Your task to perform on an android device: Go to location settings Image 0: 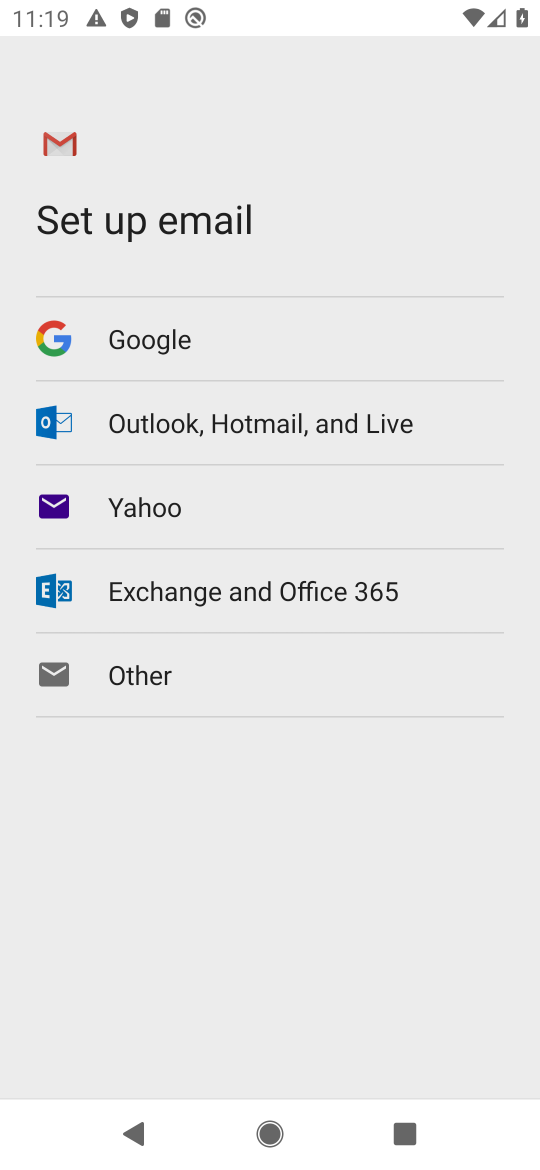
Step 0: press home button
Your task to perform on an android device: Go to location settings Image 1: 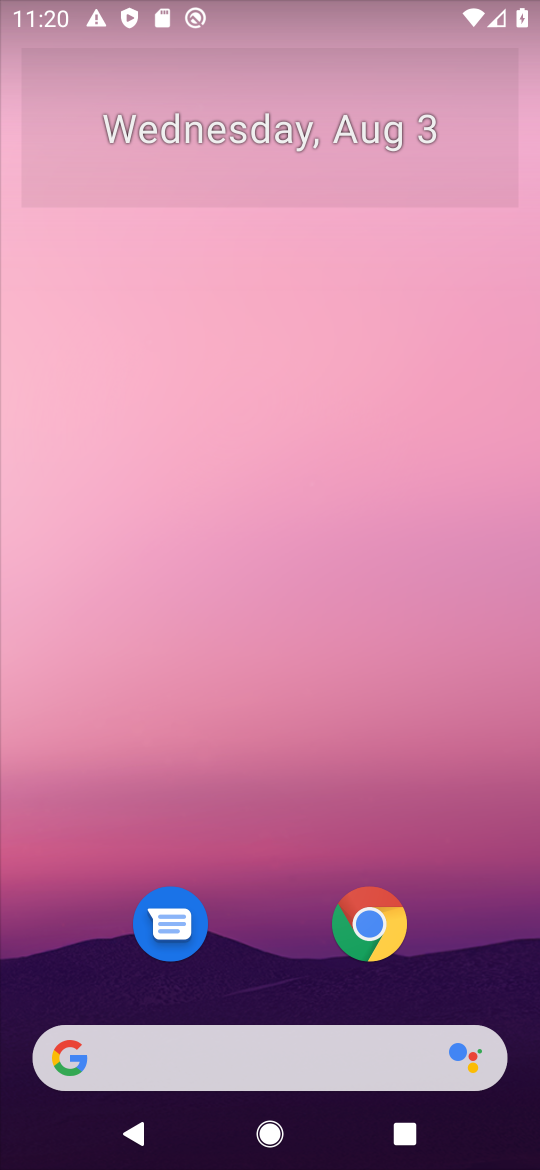
Step 1: click (332, 381)
Your task to perform on an android device: Go to location settings Image 2: 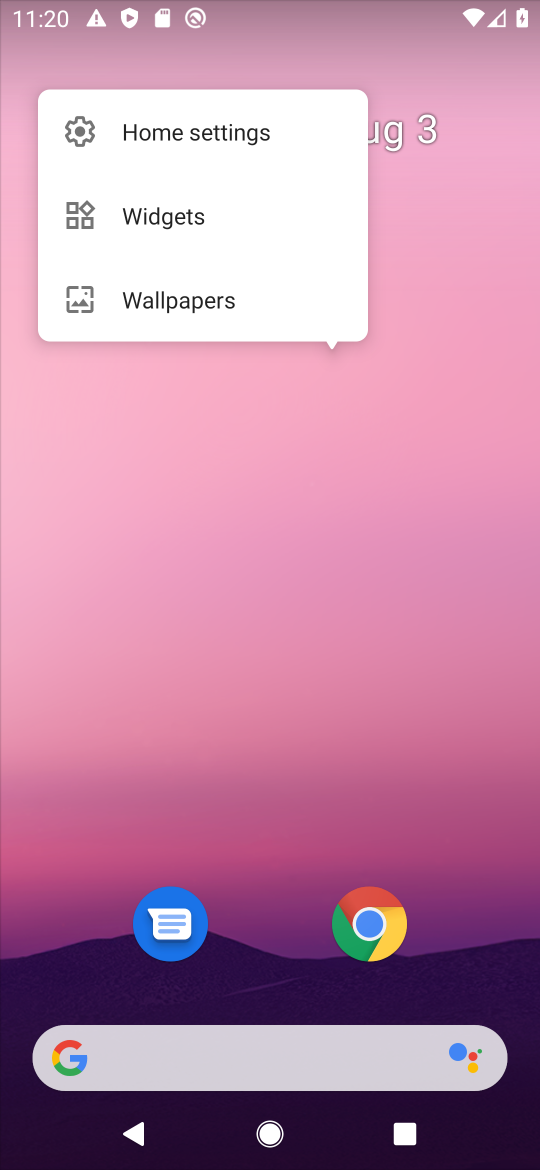
Step 2: drag from (38, 1097) to (244, 149)
Your task to perform on an android device: Go to location settings Image 3: 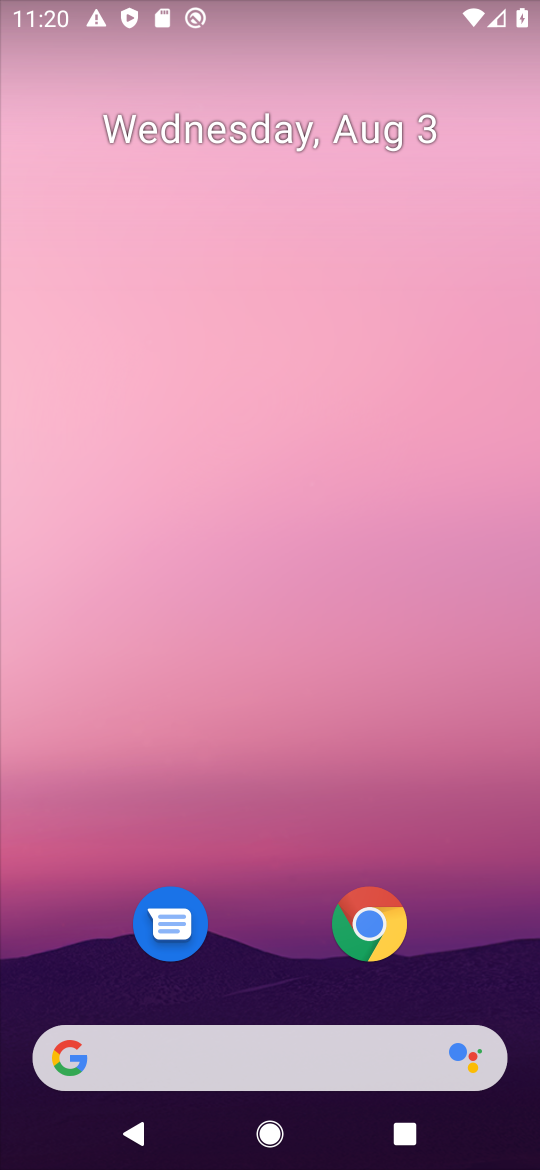
Step 3: drag from (131, 867) to (245, 259)
Your task to perform on an android device: Go to location settings Image 4: 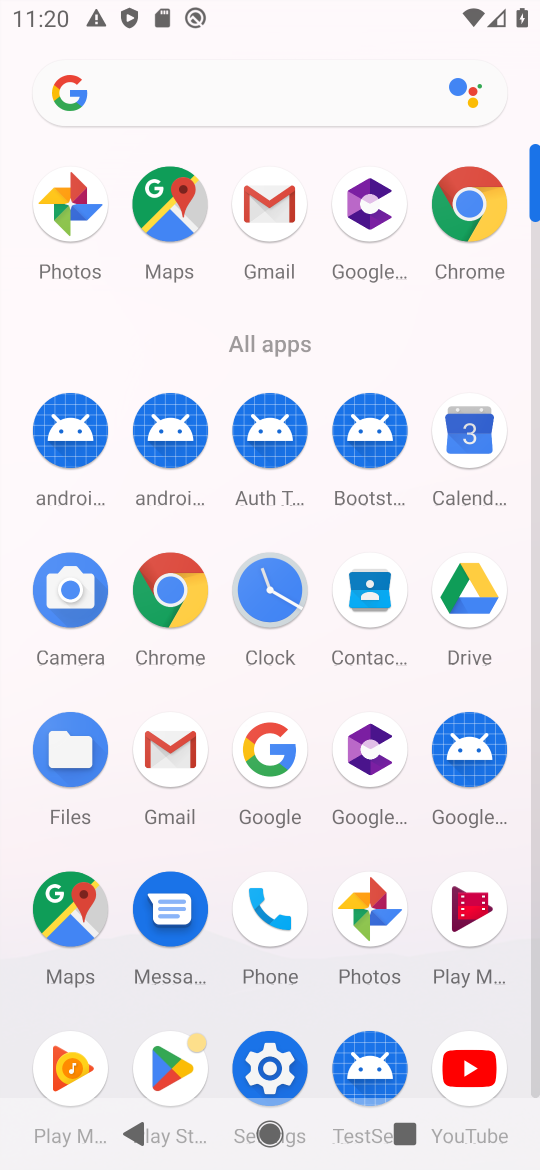
Step 4: click (249, 1071)
Your task to perform on an android device: Go to location settings Image 5: 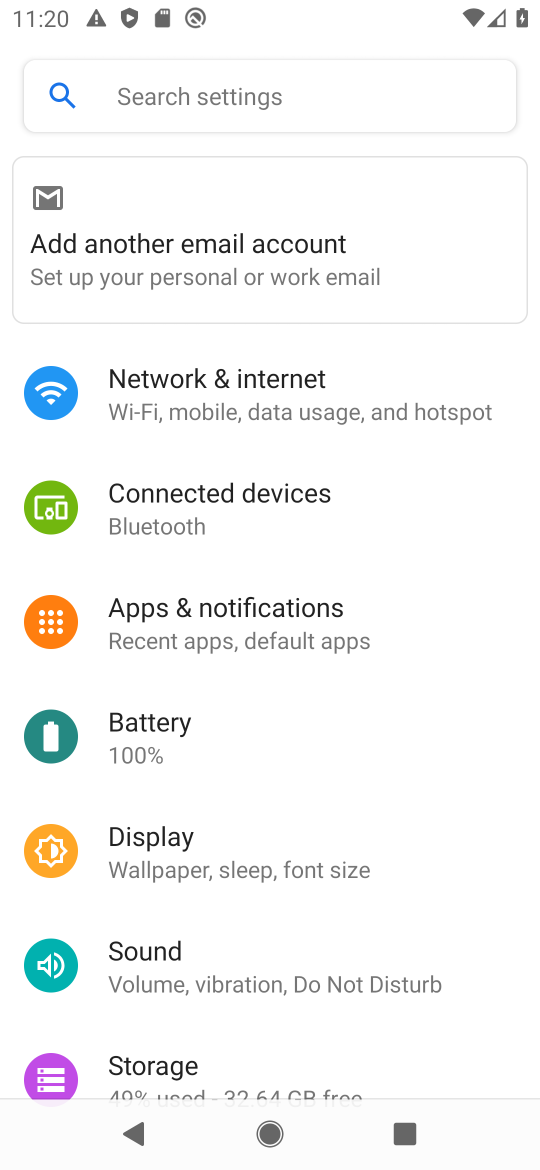
Step 5: drag from (339, 428) to (346, 120)
Your task to perform on an android device: Go to location settings Image 6: 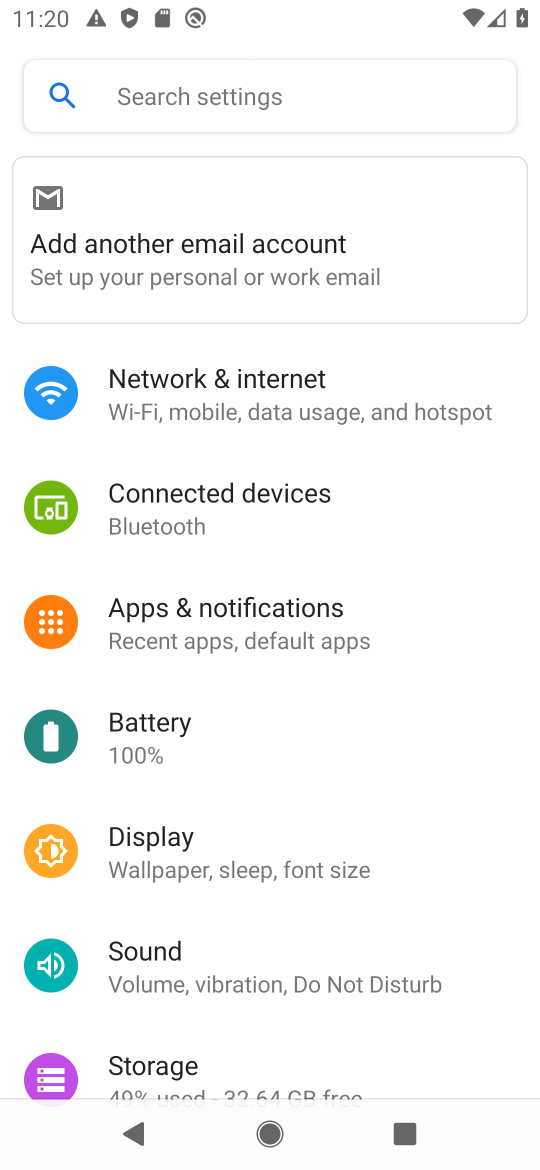
Step 6: drag from (227, 884) to (249, 432)
Your task to perform on an android device: Go to location settings Image 7: 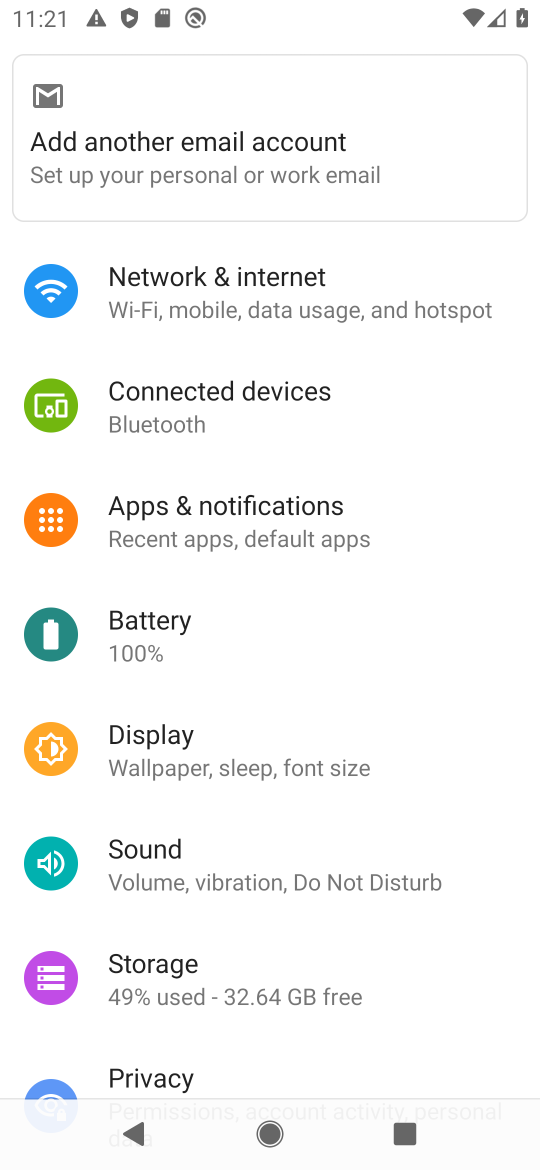
Step 7: drag from (330, 797) to (333, 605)
Your task to perform on an android device: Go to location settings Image 8: 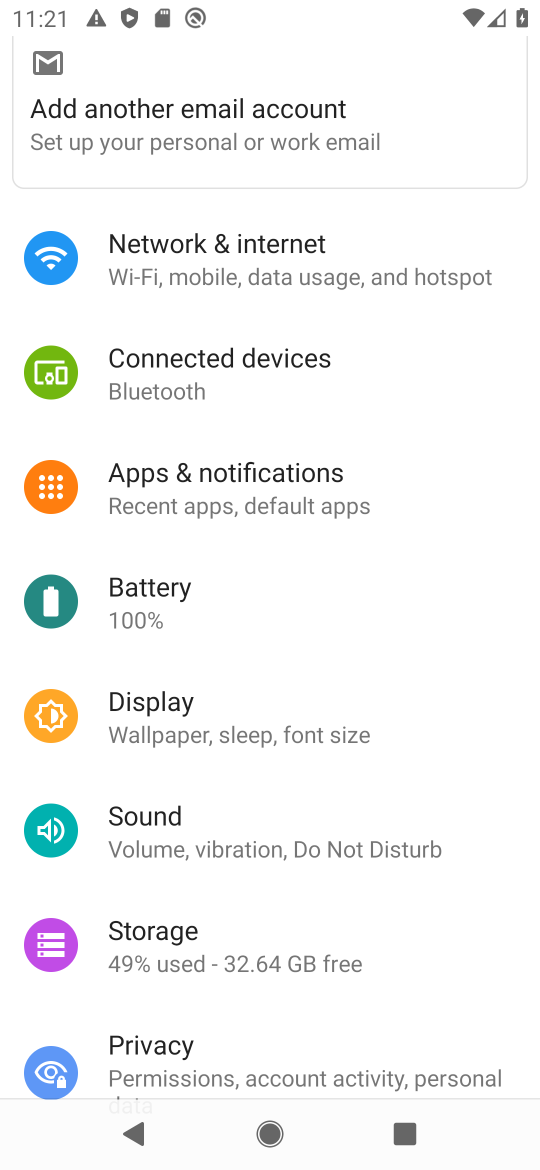
Step 8: drag from (198, 979) to (240, 536)
Your task to perform on an android device: Go to location settings Image 9: 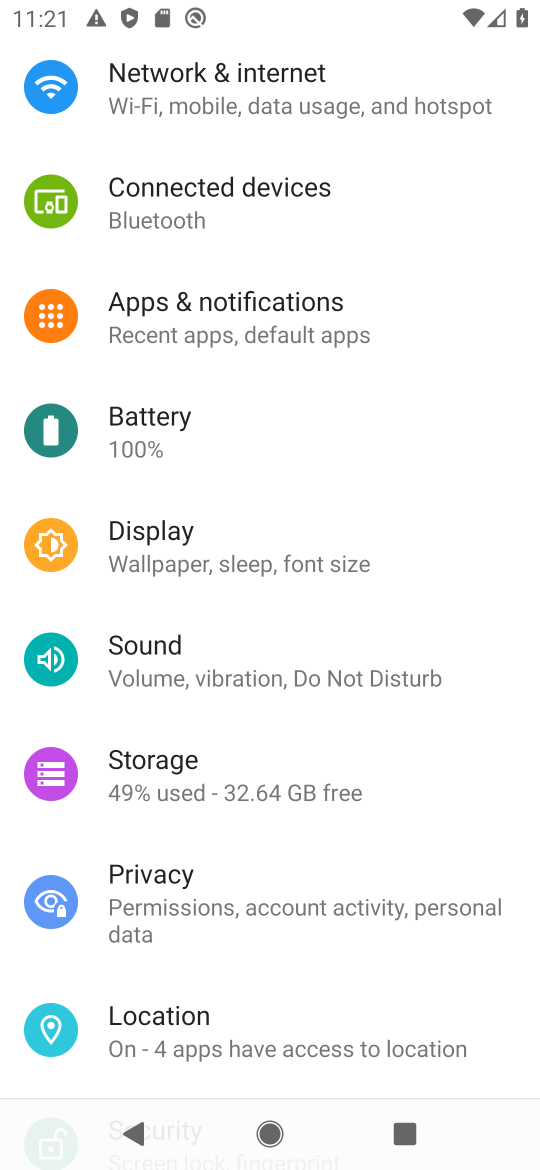
Step 9: drag from (252, 775) to (308, 255)
Your task to perform on an android device: Go to location settings Image 10: 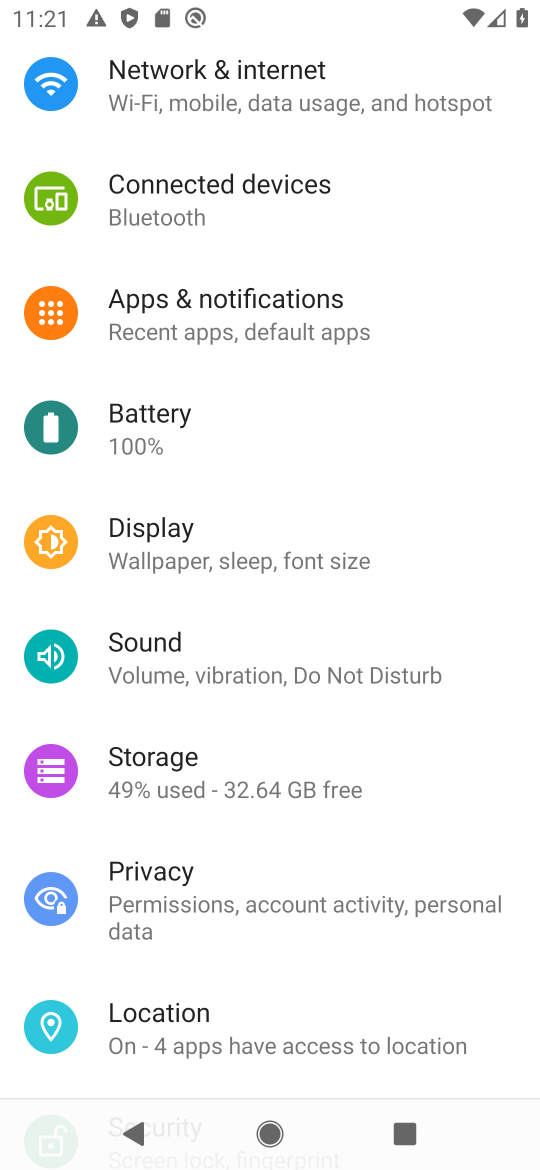
Step 10: click (165, 1028)
Your task to perform on an android device: Go to location settings Image 11: 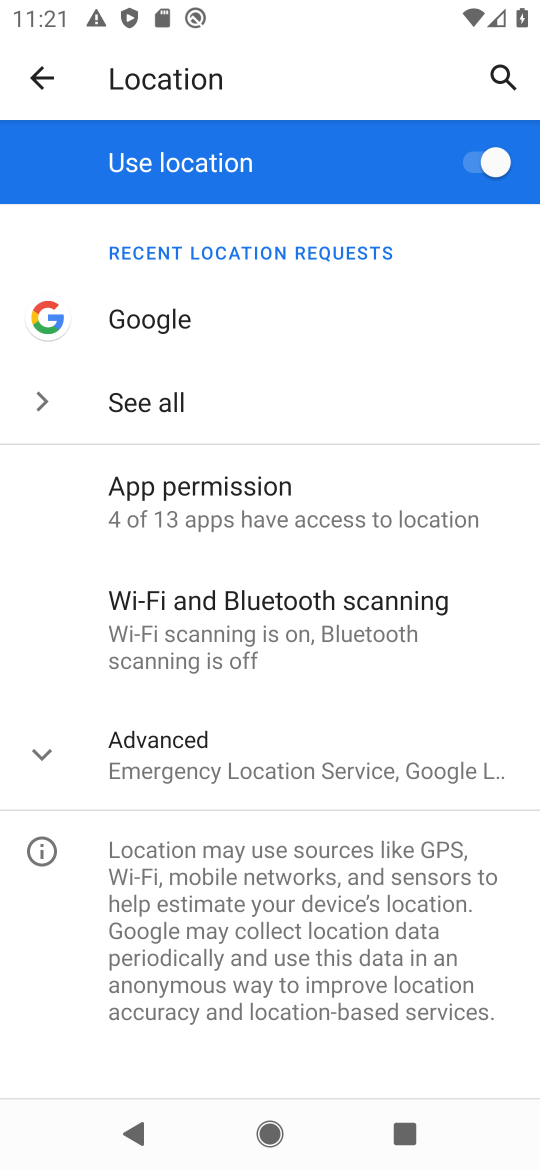
Step 11: task complete